Your task to perform on an android device: uninstall "Google Chrome" Image 0: 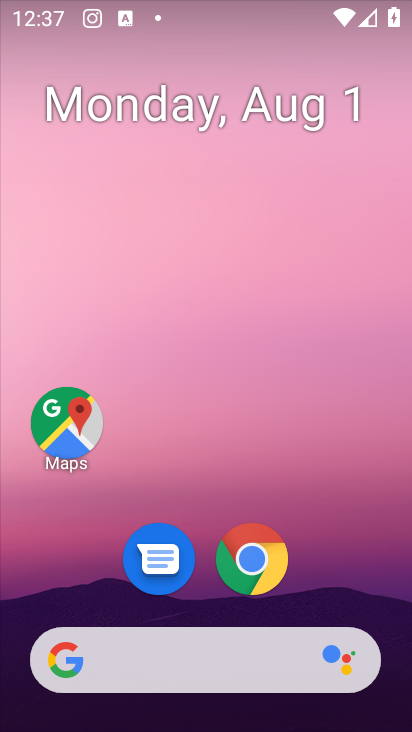
Step 0: click (248, 570)
Your task to perform on an android device: uninstall "Google Chrome" Image 1: 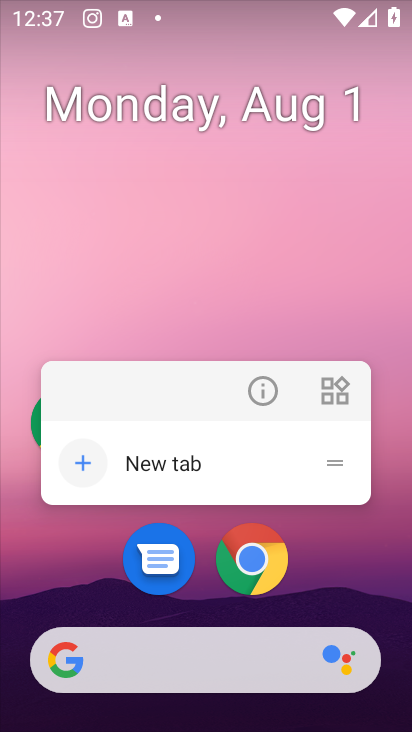
Step 1: click (253, 560)
Your task to perform on an android device: uninstall "Google Chrome" Image 2: 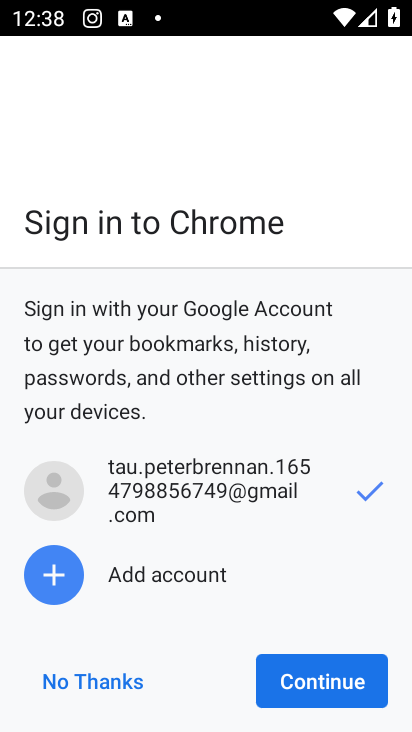
Step 2: press back button
Your task to perform on an android device: uninstall "Google Chrome" Image 3: 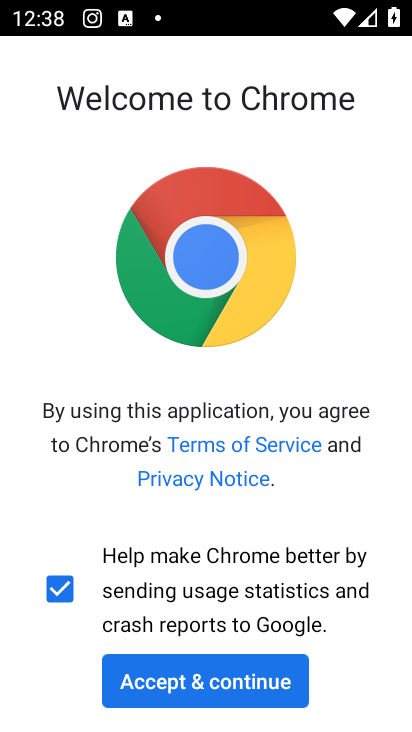
Step 3: press back button
Your task to perform on an android device: uninstall "Google Chrome" Image 4: 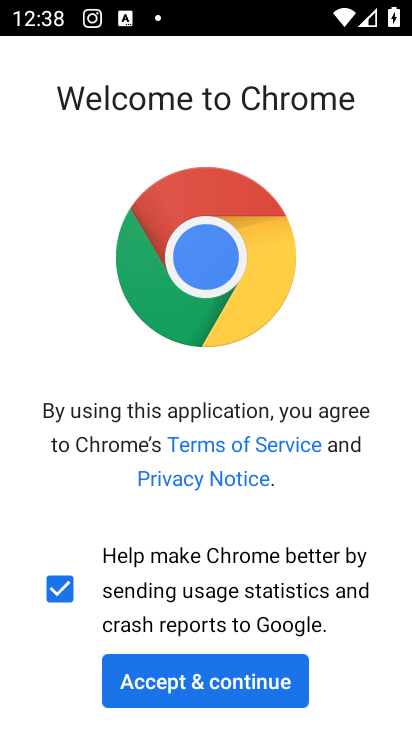
Step 4: press back button
Your task to perform on an android device: uninstall "Google Chrome" Image 5: 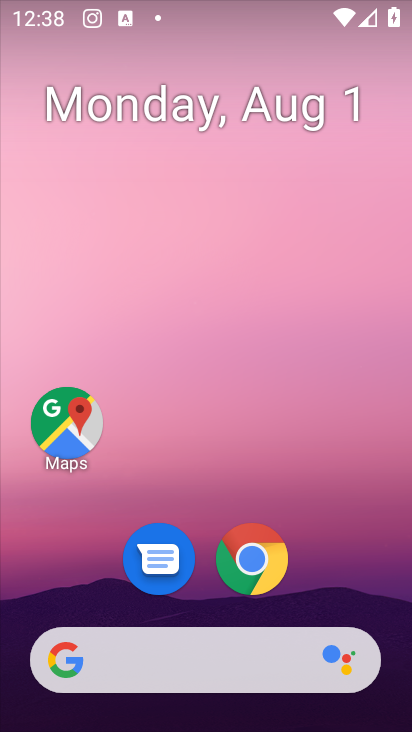
Step 5: click (240, 557)
Your task to perform on an android device: uninstall "Google Chrome" Image 6: 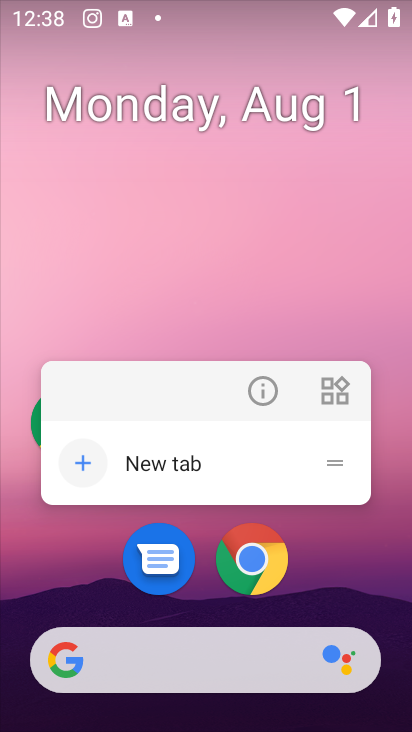
Step 6: click (269, 391)
Your task to perform on an android device: uninstall "Google Chrome" Image 7: 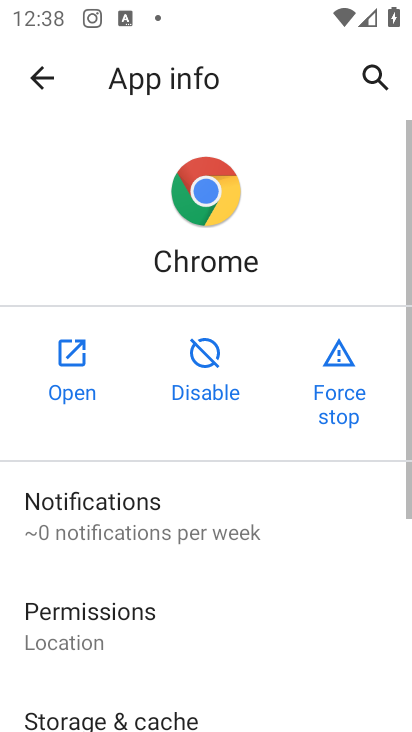
Step 7: task complete